Your task to perform on an android device: turn on the 24-hour format for clock Image 0: 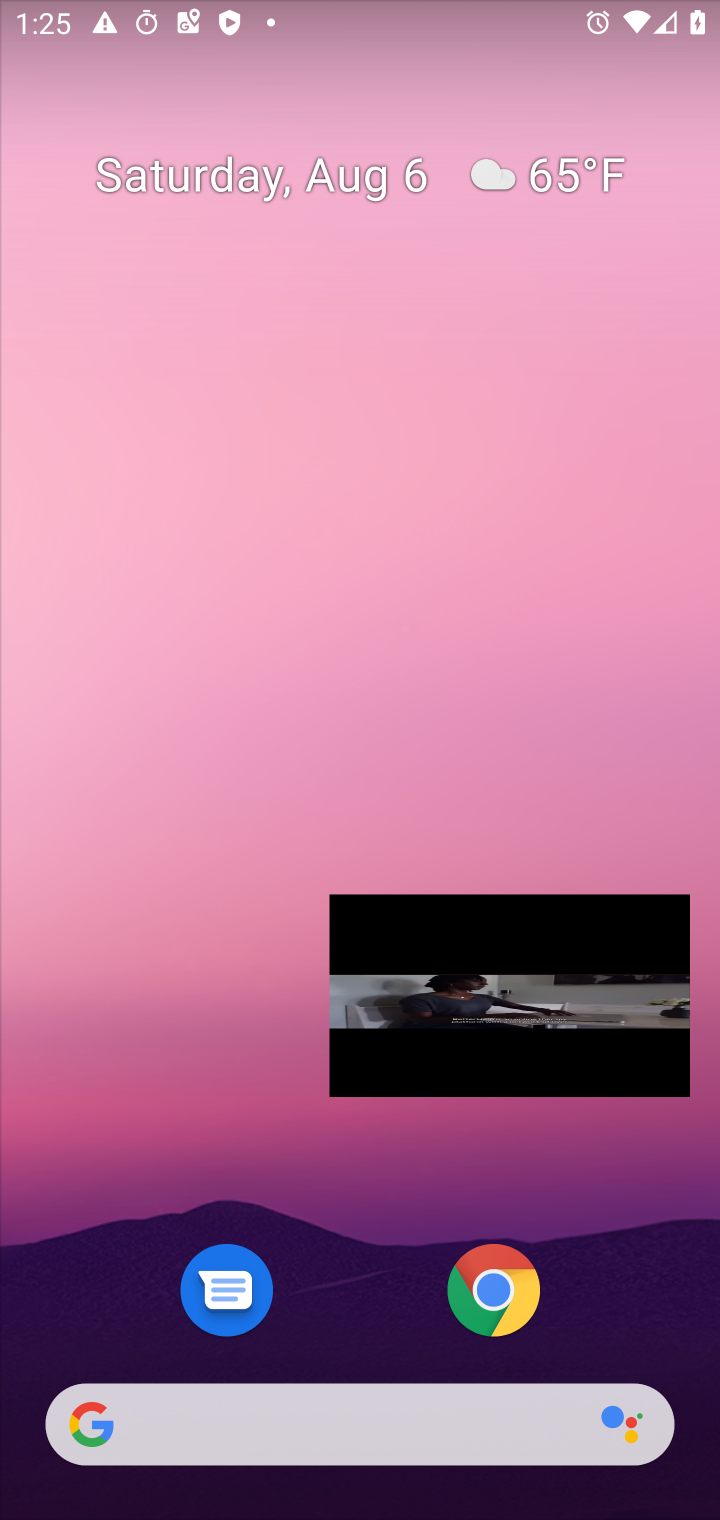
Step 0: press home button
Your task to perform on an android device: turn on the 24-hour format for clock Image 1: 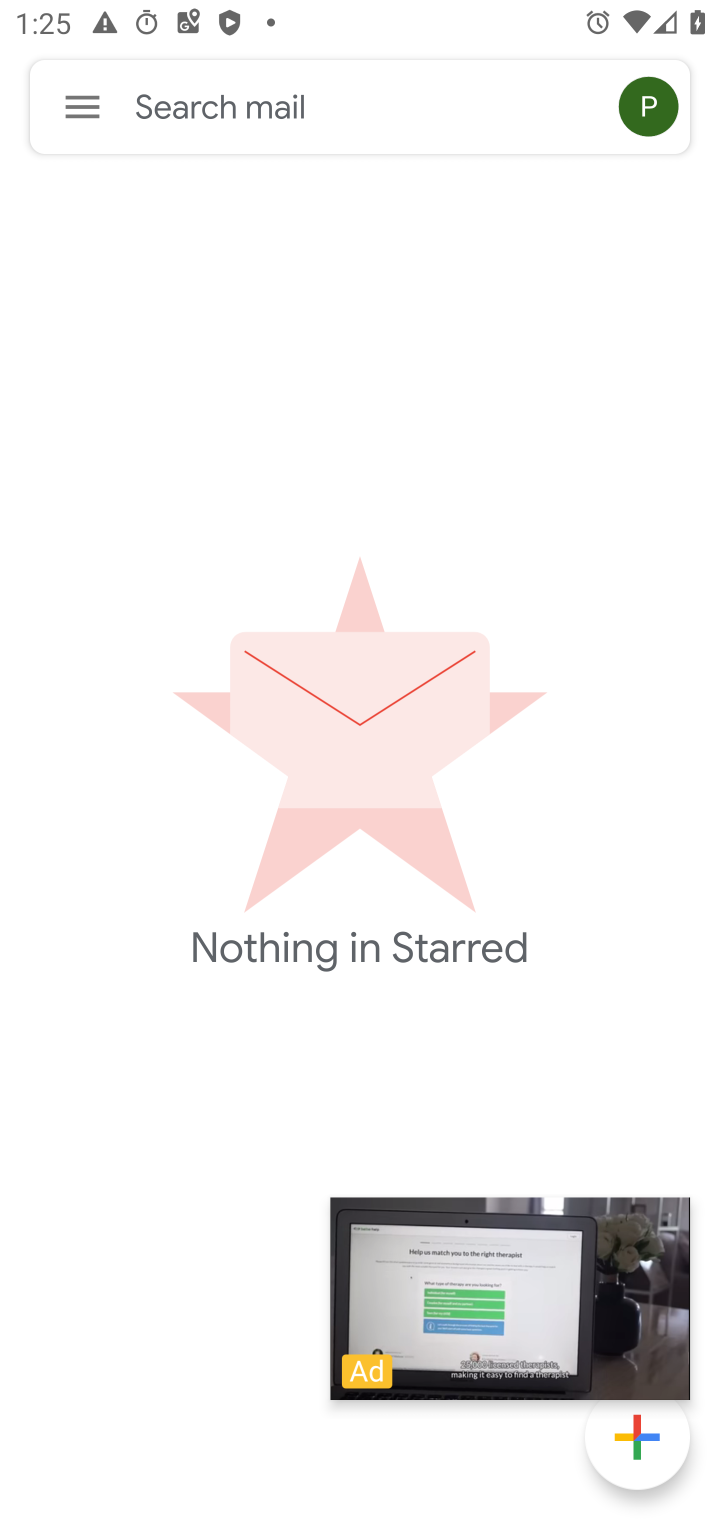
Step 1: click (553, 78)
Your task to perform on an android device: turn on the 24-hour format for clock Image 2: 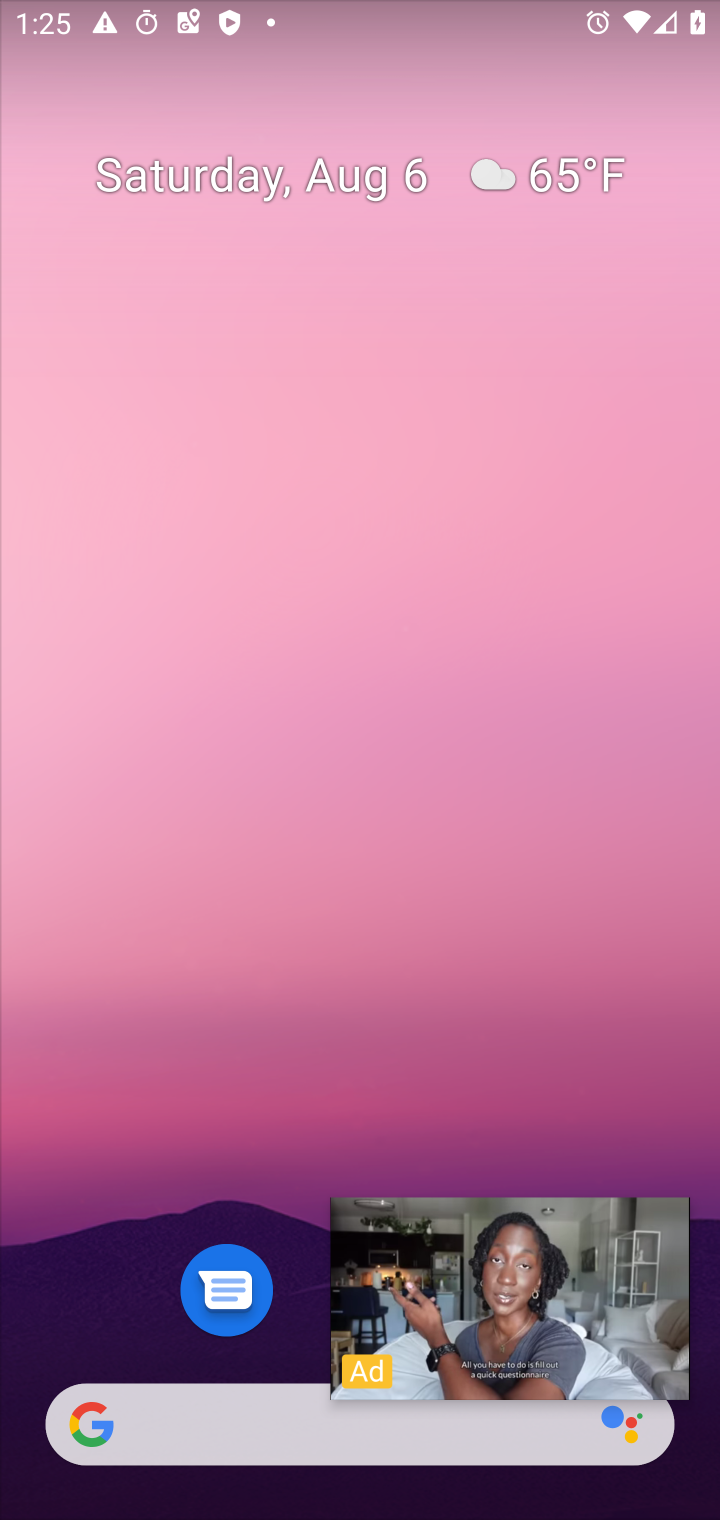
Step 2: click (605, 1248)
Your task to perform on an android device: turn on the 24-hour format for clock Image 3: 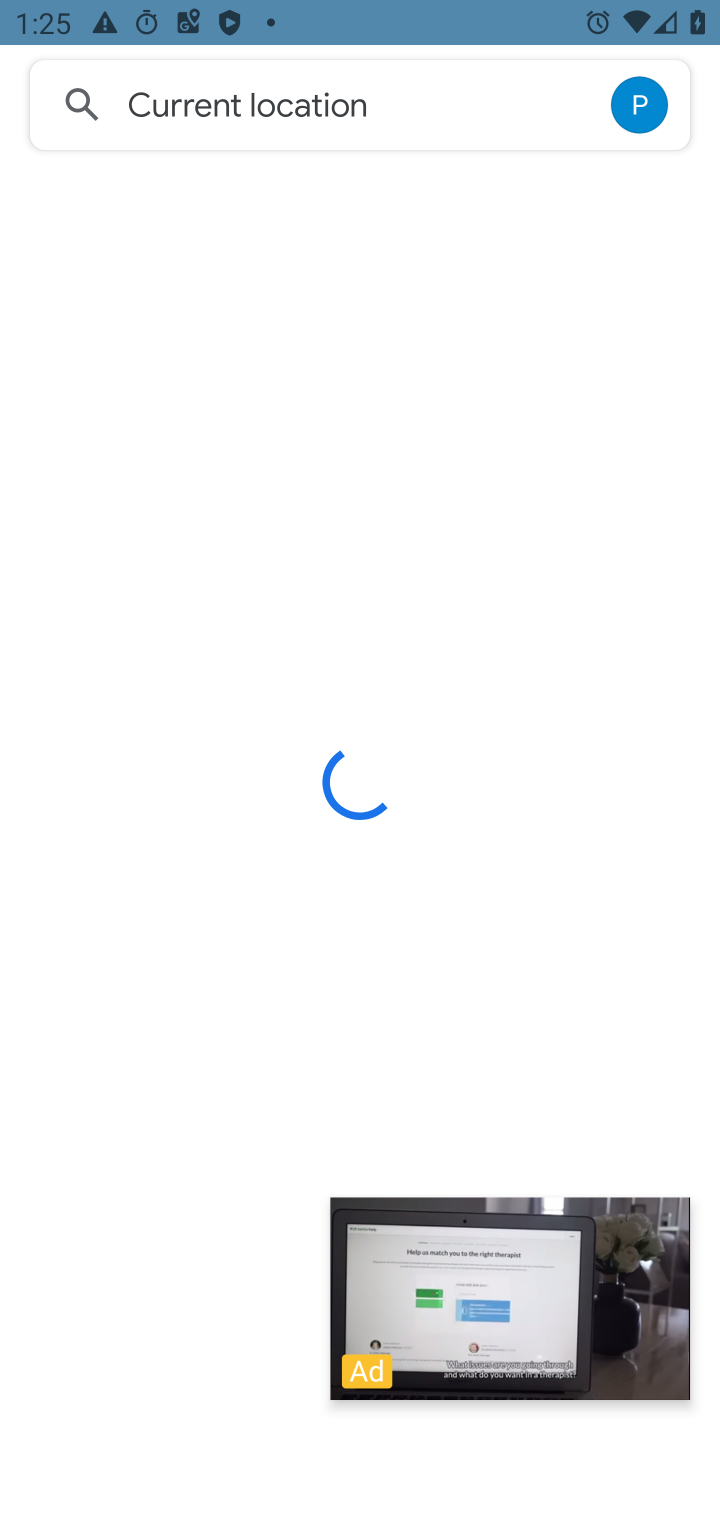
Step 3: click (566, 1308)
Your task to perform on an android device: turn on the 24-hour format for clock Image 4: 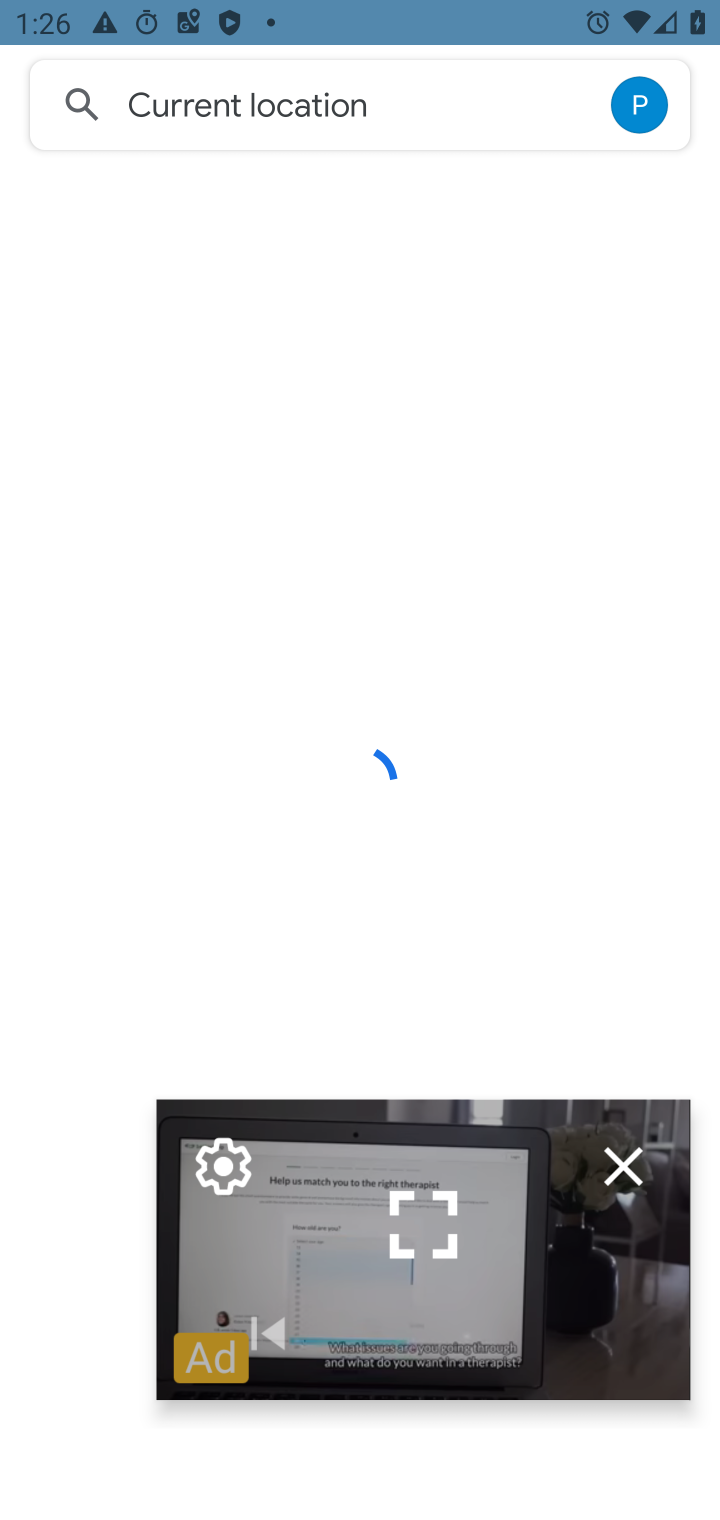
Step 4: click (619, 1169)
Your task to perform on an android device: turn on the 24-hour format for clock Image 5: 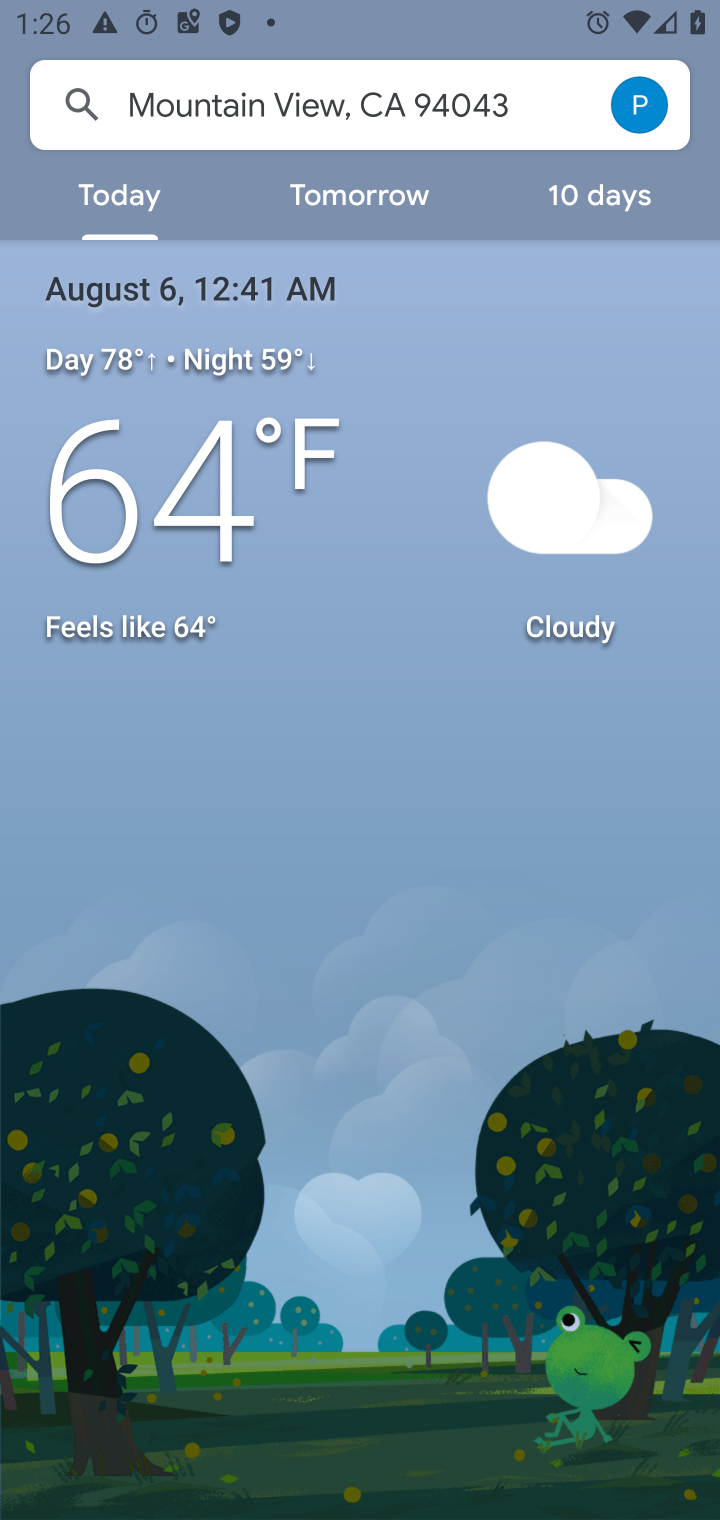
Step 5: press home button
Your task to perform on an android device: turn on the 24-hour format for clock Image 6: 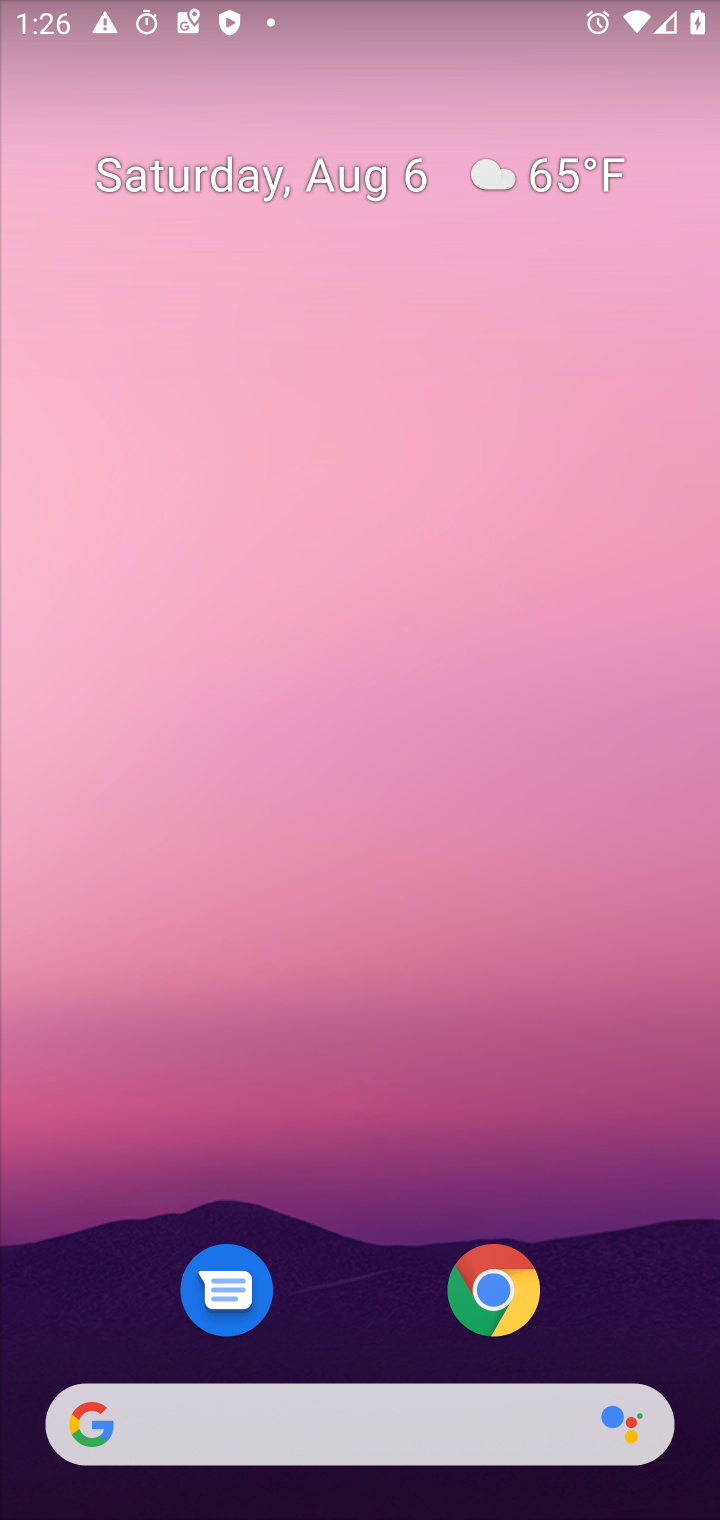
Step 6: drag from (396, 1254) to (536, 265)
Your task to perform on an android device: turn on the 24-hour format for clock Image 7: 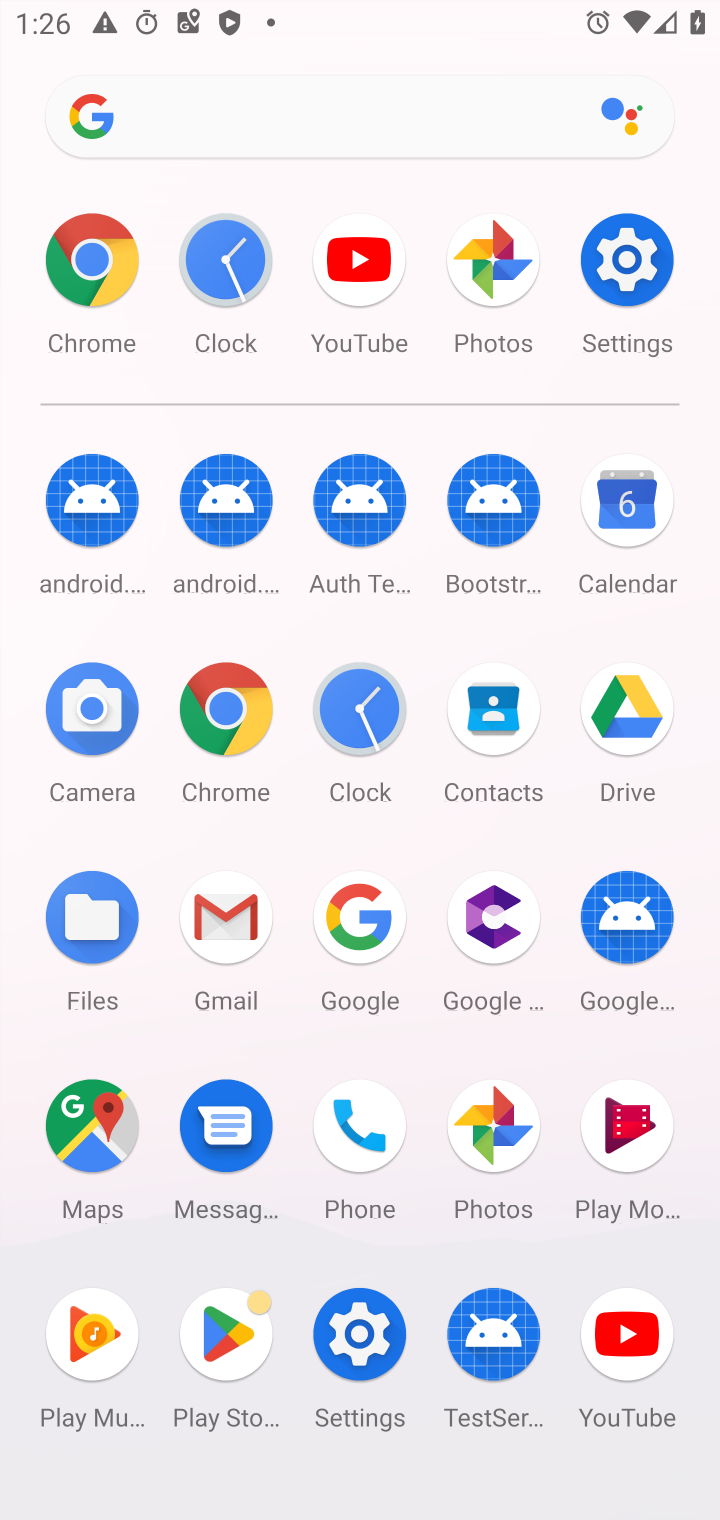
Step 7: click (355, 710)
Your task to perform on an android device: turn on the 24-hour format for clock Image 8: 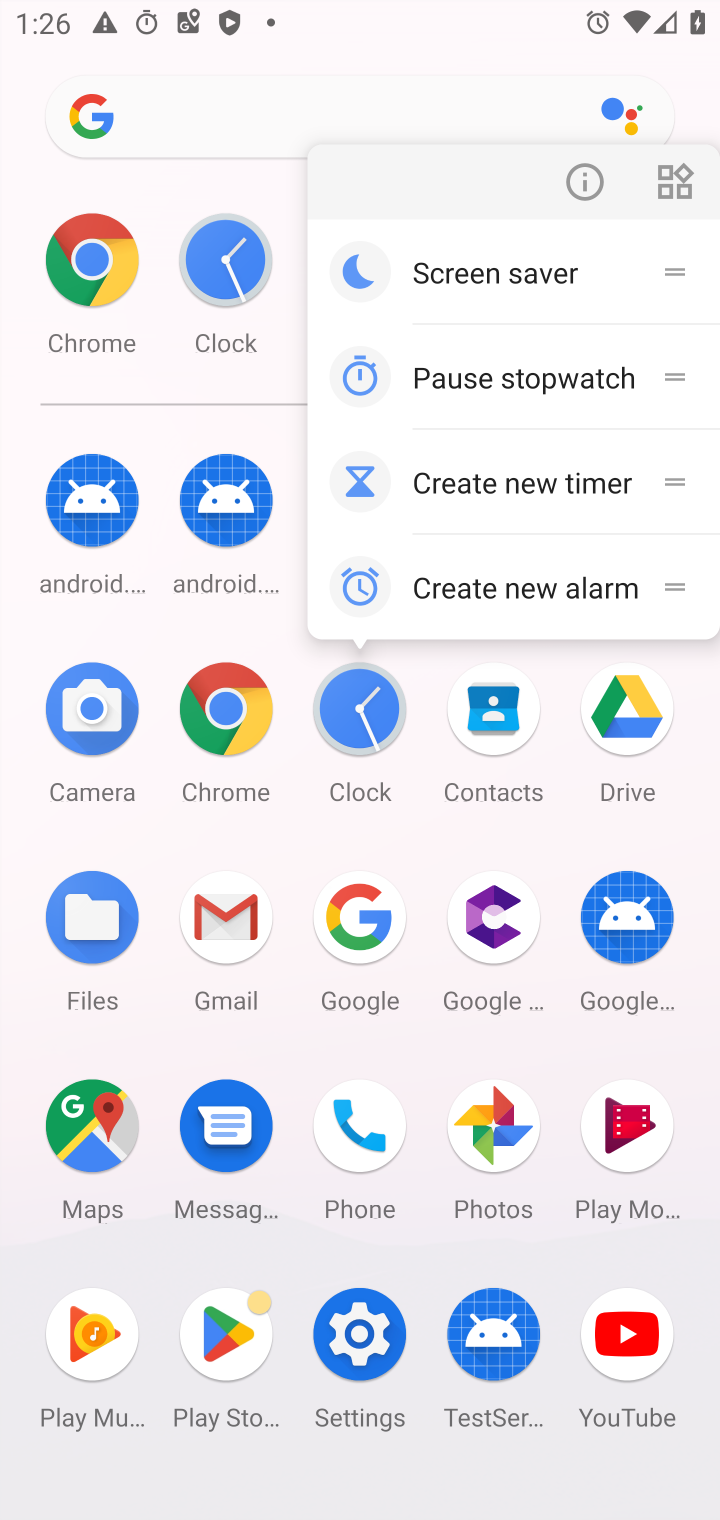
Step 8: click (360, 694)
Your task to perform on an android device: turn on the 24-hour format for clock Image 9: 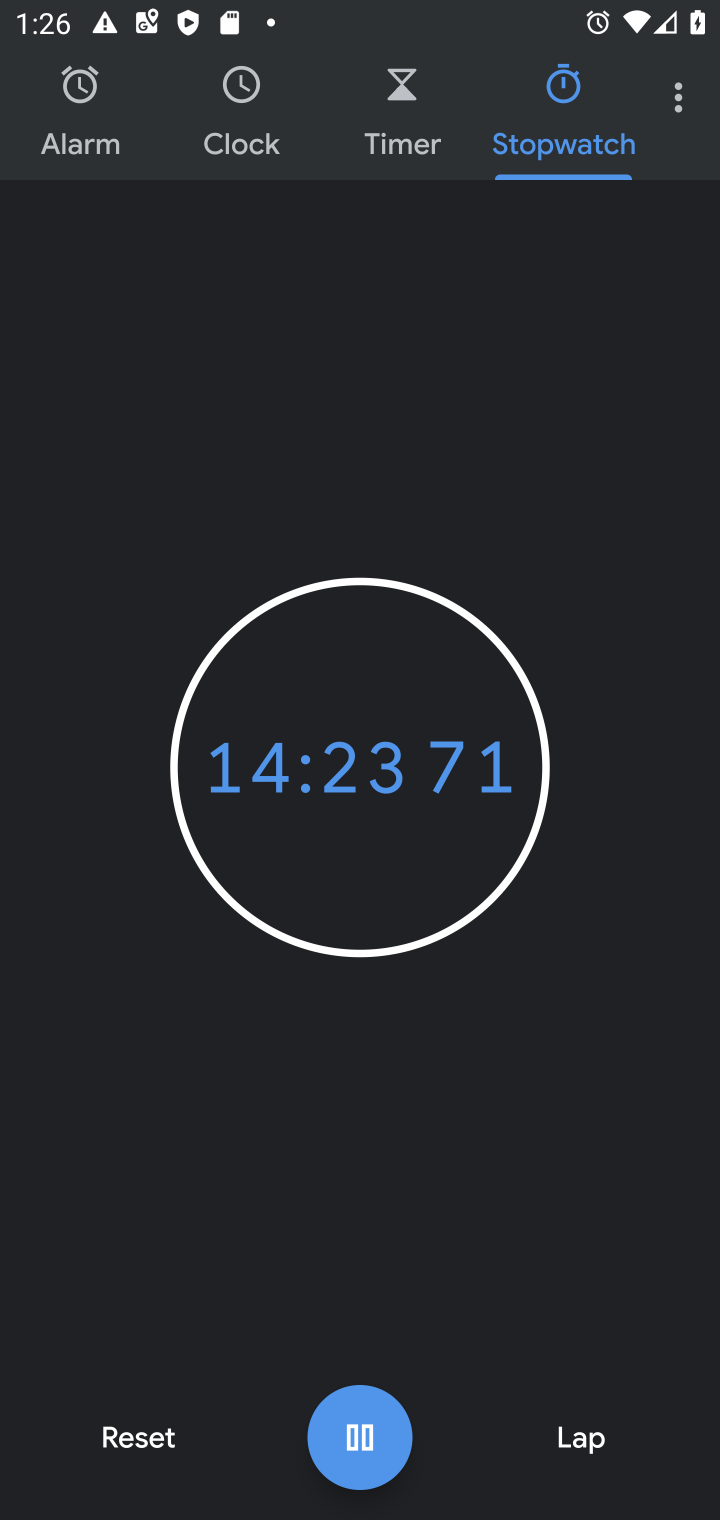
Step 9: click (678, 93)
Your task to perform on an android device: turn on the 24-hour format for clock Image 10: 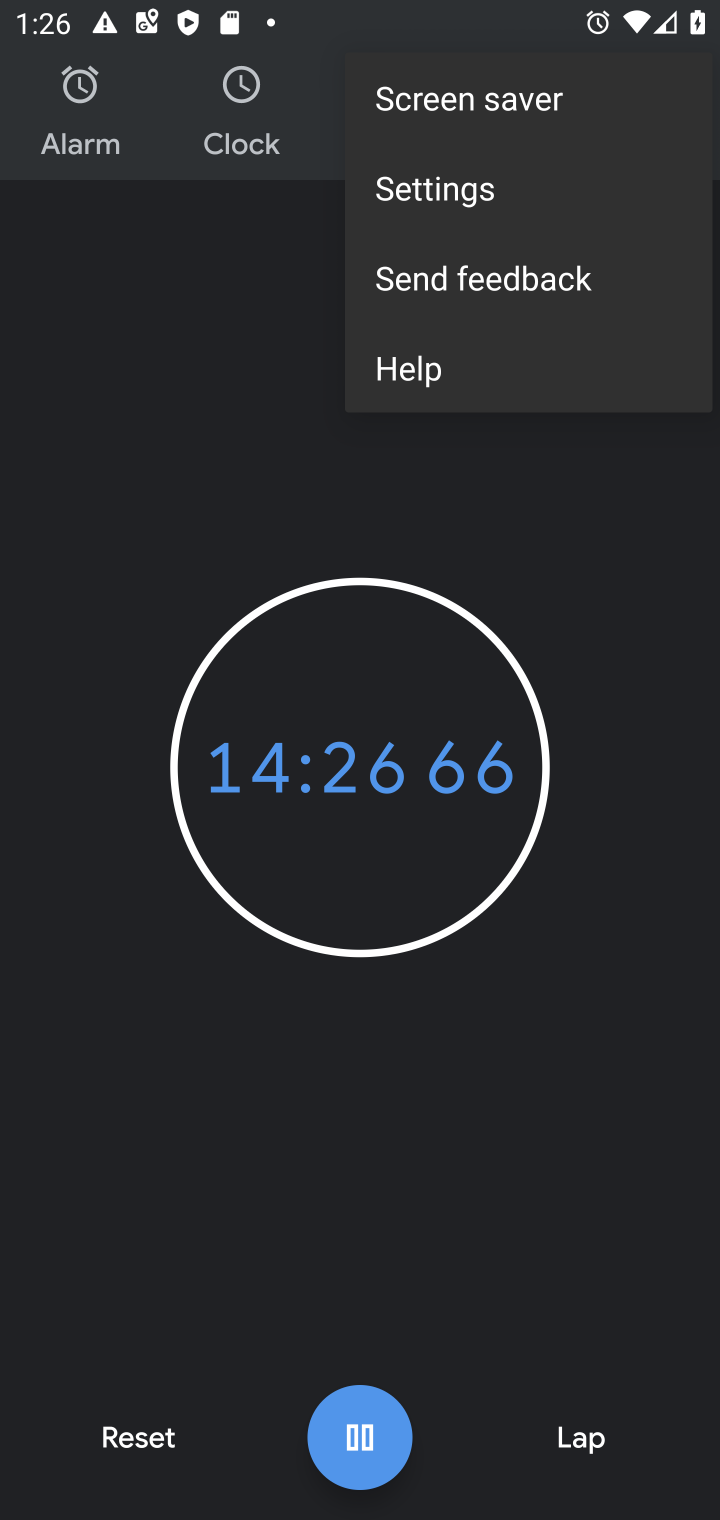
Step 10: click (542, 202)
Your task to perform on an android device: turn on the 24-hour format for clock Image 11: 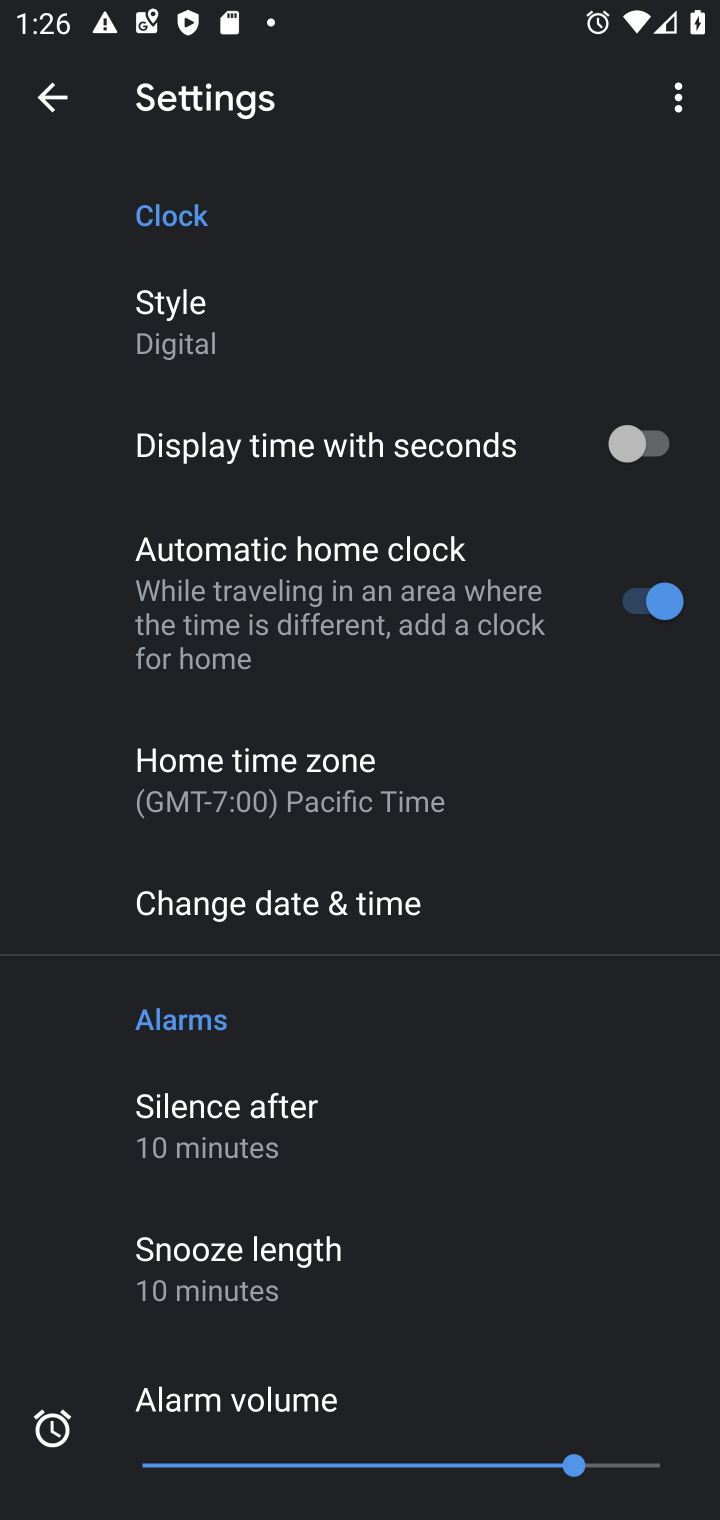
Step 11: click (431, 901)
Your task to perform on an android device: turn on the 24-hour format for clock Image 12: 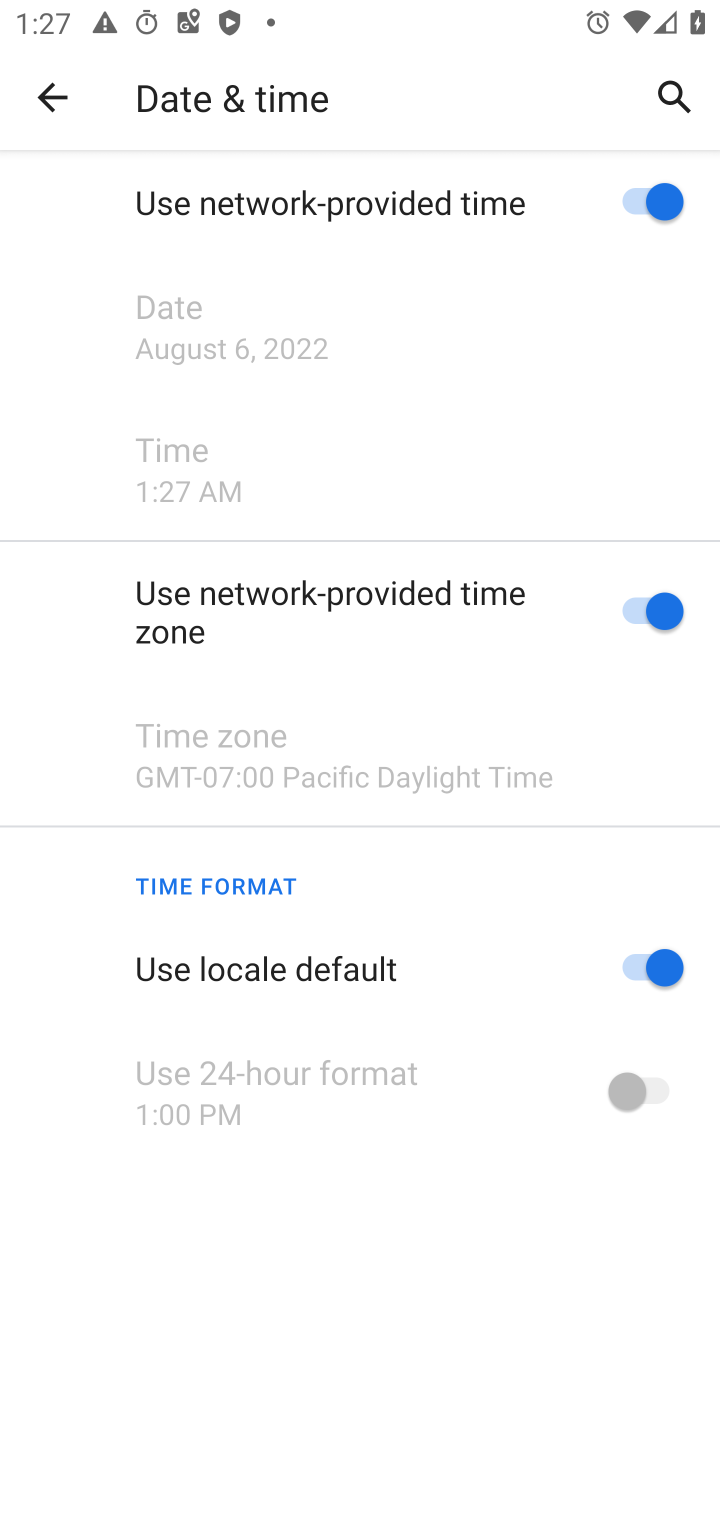
Step 12: click (644, 957)
Your task to perform on an android device: turn on the 24-hour format for clock Image 13: 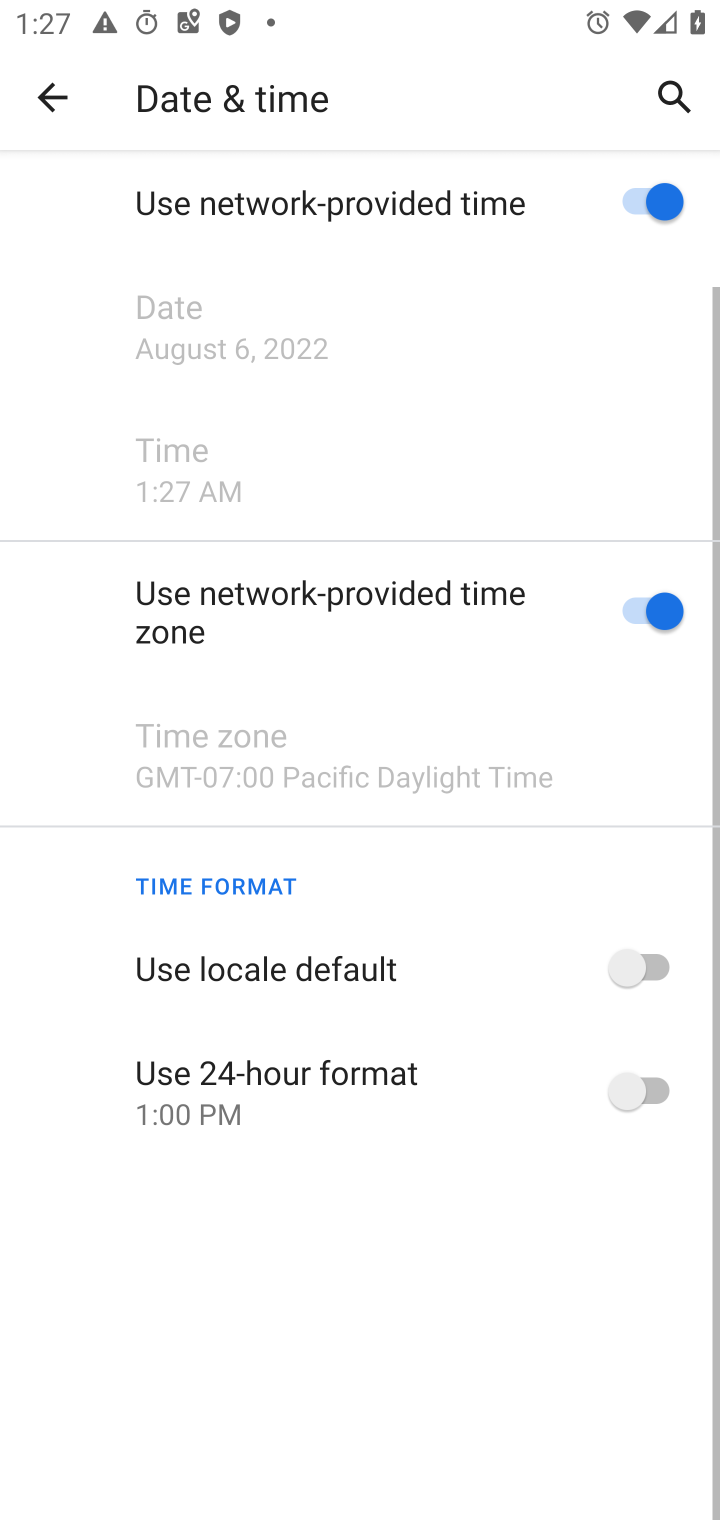
Step 13: click (647, 1082)
Your task to perform on an android device: turn on the 24-hour format for clock Image 14: 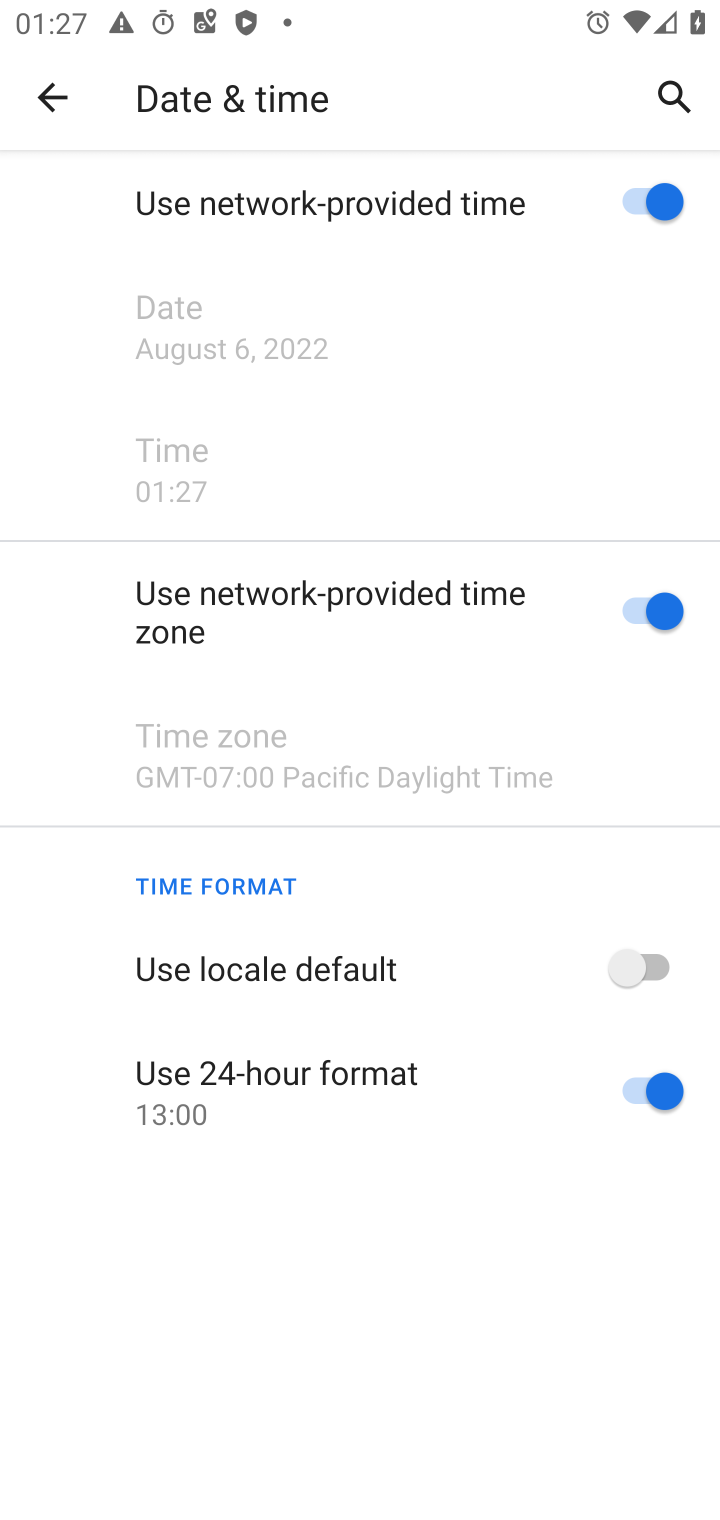
Step 14: task complete